Your task to perform on an android device: Open ESPN.com Image 0: 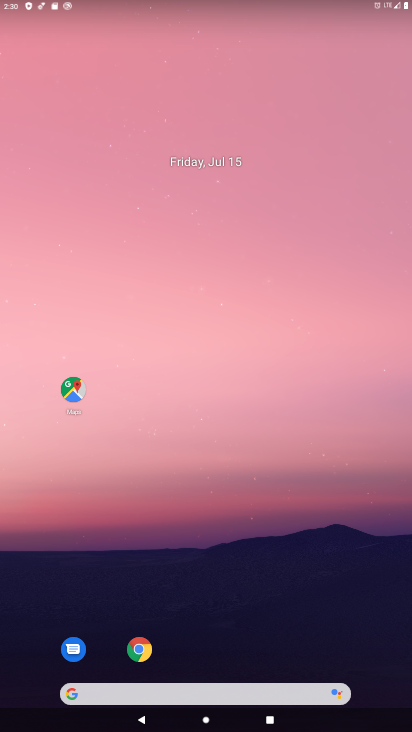
Step 0: click (167, 694)
Your task to perform on an android device: Open ESPN.com Image 1: 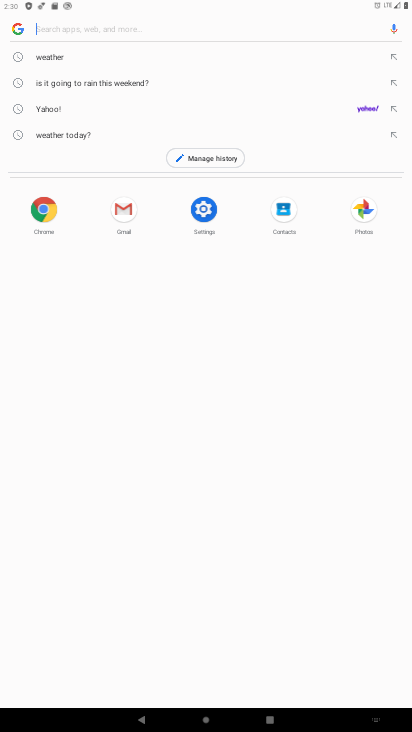
Step 1: click (48, 206)
Your task to perform on an android device: Open ESPN.com Image 2: 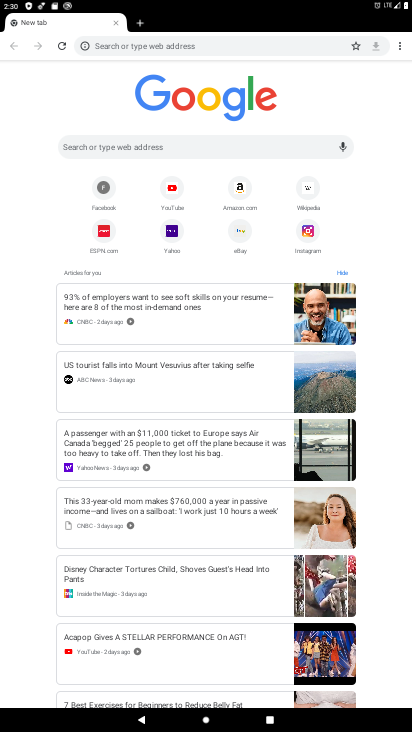
Step 2: click (106, 236)
Your task to perform on an android device: Open ESPN.com Image 3: 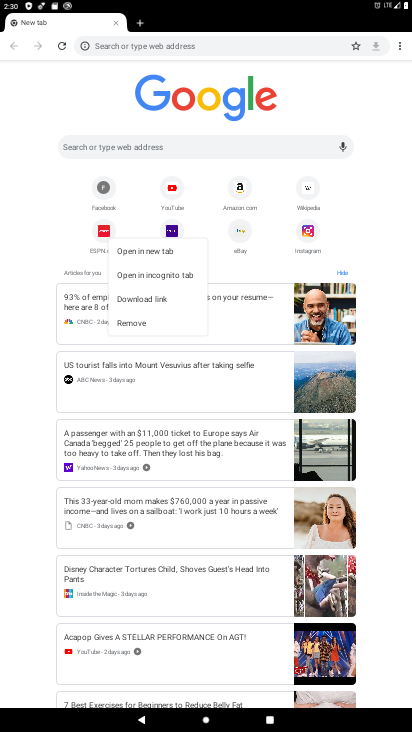
Step 3: click (100, 236)
Your task to perform on an android device: Open ESPN.com Image 4: 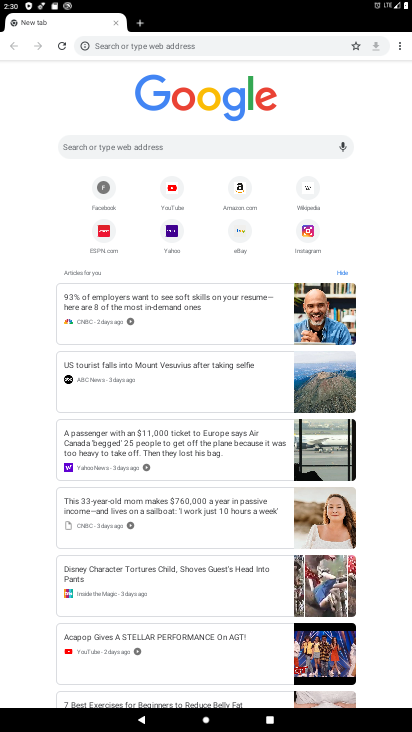
Step 4: click (94, 234)
Your task to perform on an android device: Open ESPN.com Image 5: 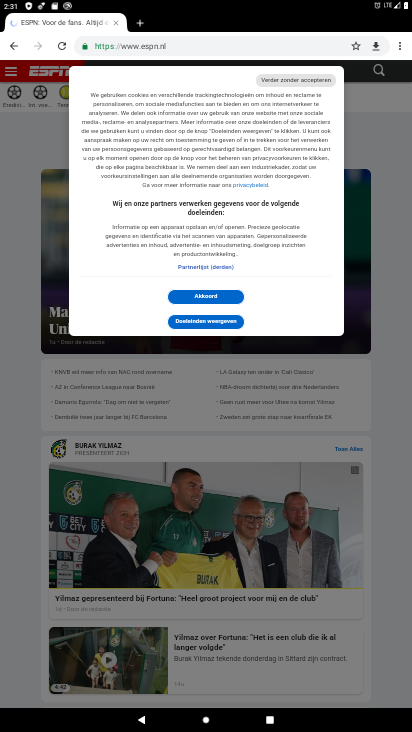
Step 5: task complete